Your task to perform on an android device: Add "dell xps" to the cart on amazon.com Image 0: 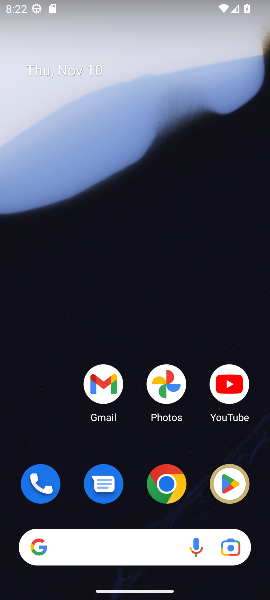
Step 0: click (173, 488)
Your task to perform on an android device: Add "dell xps" to the cart on amazon.com Image 1: 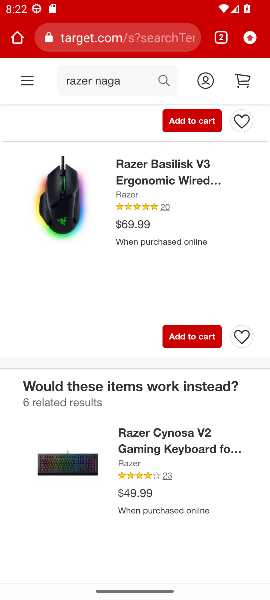
Step 1: click (108, 42)
Your task to perform on an android device: Add "dell xps" to the cart on amazon.com Image 2: 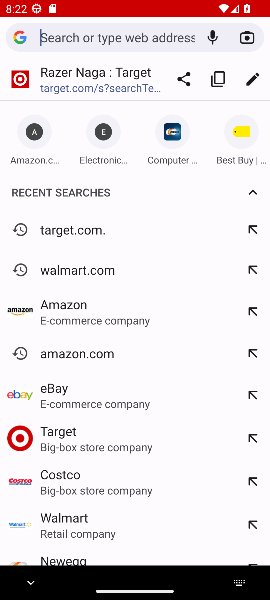
Step 2: click (24, 148)
Your task to perform on an android device: Add "dell xps" to the cart on amazon.com Image 3: 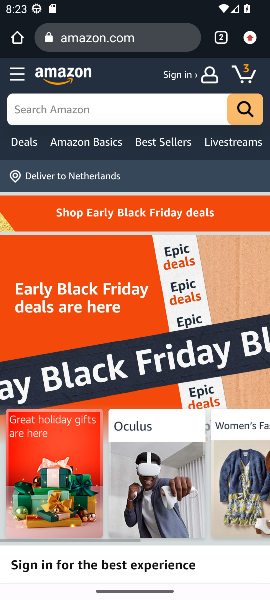
Step 3: click (33, 117)
Your task to perform on an android device: Add "dell xps" to the cart on amazon.com Image 4: 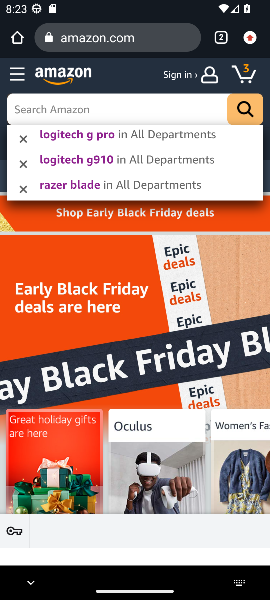
Step 4: type "dell xps"
Your task to perform on an android device: Add "dell xps" to the cart on amazon.com Image 5: 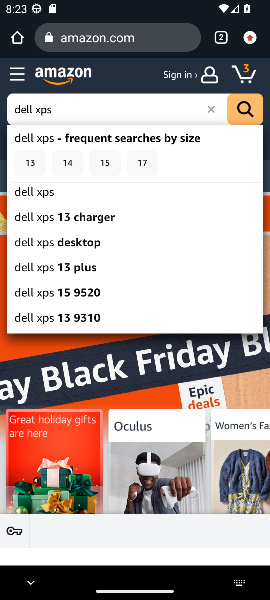
Step 5: click (22, 194)
Your task to perform on an android device: Add "dell xps" to the cart on amazon.com Image 6: 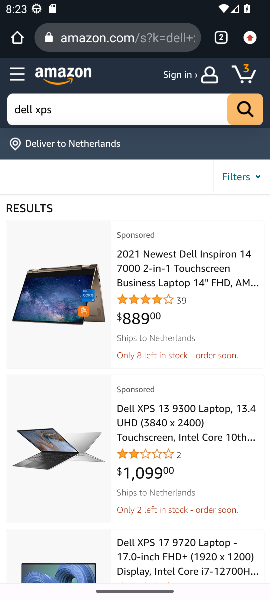
Step 6: click (55, 467)
Your task to perform on an android device: Add "dell xps" to the cart on amazon.com Image 7: 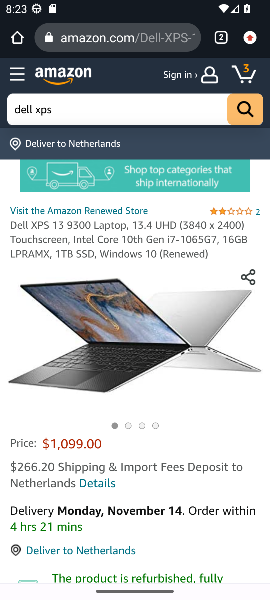
Step 7: drag from (106, 499) to (120, 306)
Your task to perform on an android device: Add "dell xps" to the cart on amazon.com Image 8: 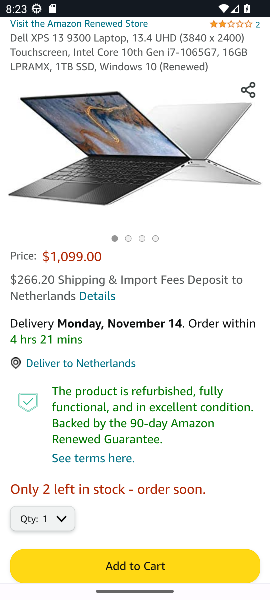
Step 8: drag from (126, 465) to (133, 314)
Your task to perform on an android device: Add "dell xps" to the cart on amazon.com Image 9: 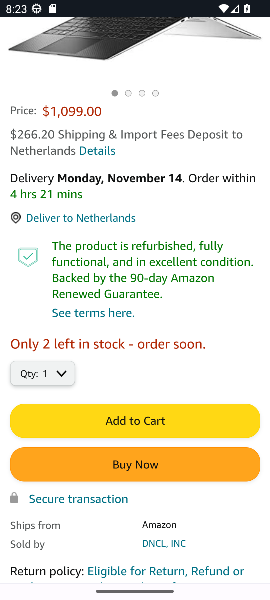
Step 9: click (122, 421)
Your task to perform on an android device: Add "dell xps" to the cart on amazon.com Image 10: 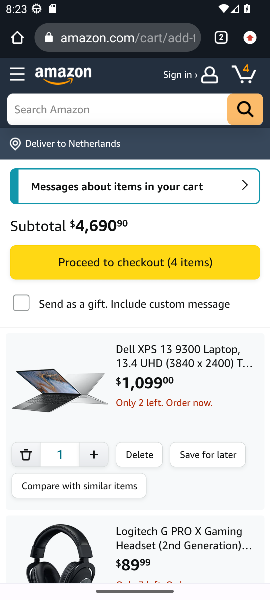
Step 10: task complete